Your task to perform on an android device: set an alarm Image 0: 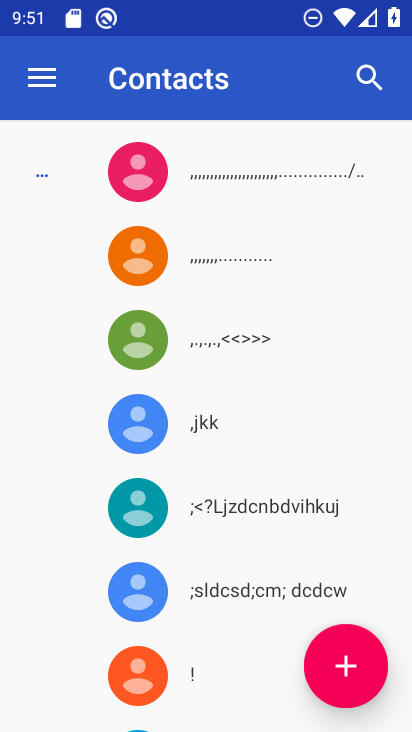
Step 0: press home button
Your task to perform on an android device: set an alarm Image 1: 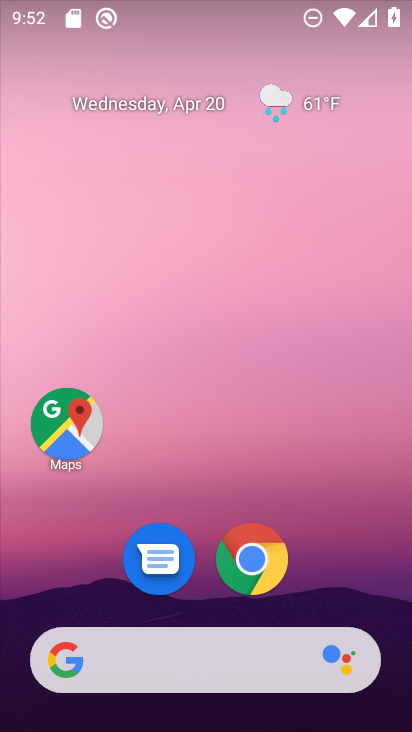
Step 1: drag from (388, 600) to (347, 174)
Your task to perform on an android device: set an alarm Image 2: 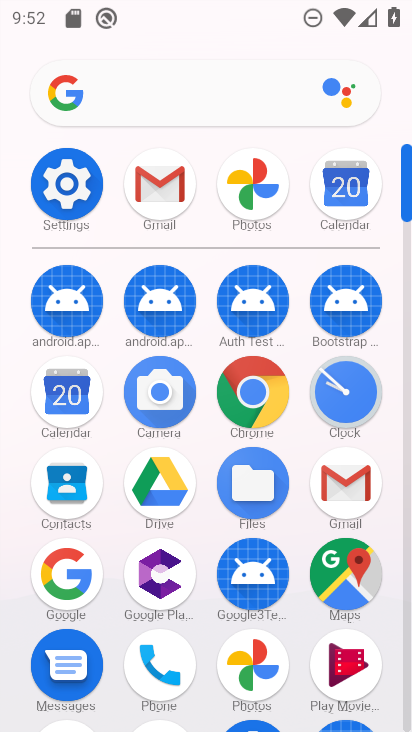
Step 2: click (408, 695)
Your task to perform on an android device: set an alarm Image 3: 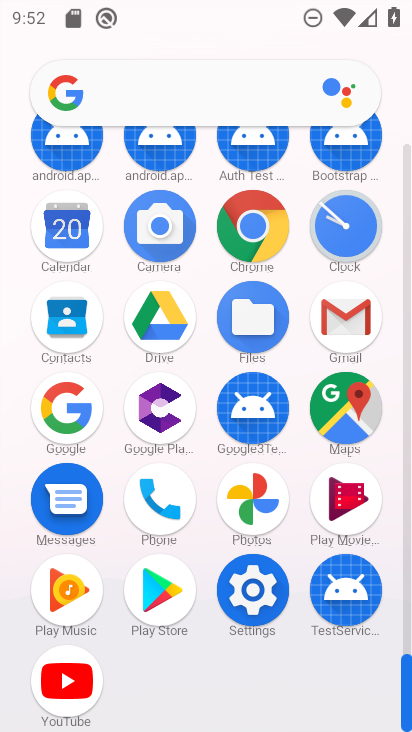
Step 3: click (343, 222)
Your task to perform on an android device: set an alarm Image 4: 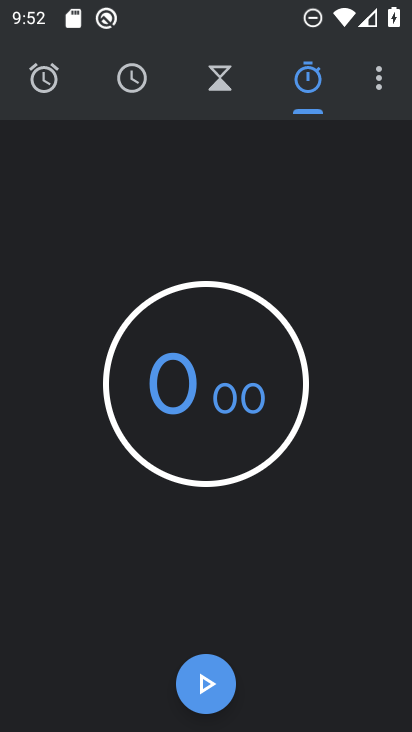
Step 4: click (37, 77)
Your task to perform on an android device: set an alarm Image 5: 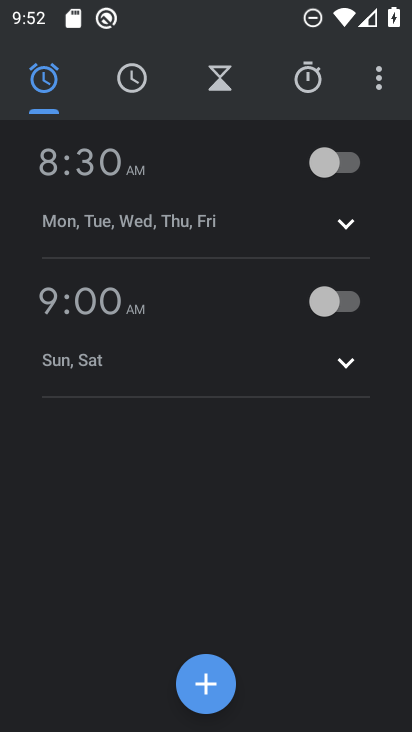
Step 5: click (63, 172)
Your task to perform on an android device: set an alarm Image 6: 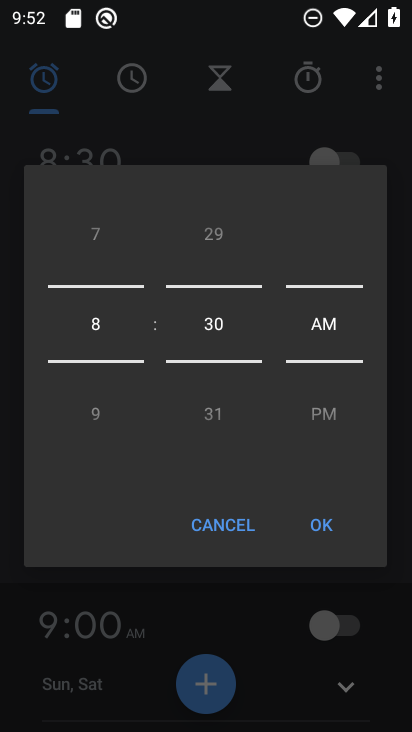
Step 6: drag from (116, 283) to (92, 496)
Your task to perform on an android device: set an alarm Image 7: 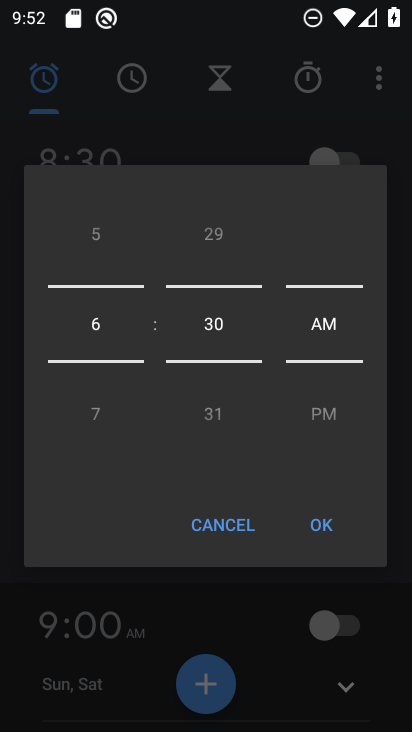
Step 7: click (322, 519)
Your task to perform on an android device: set an alarm Image 8: 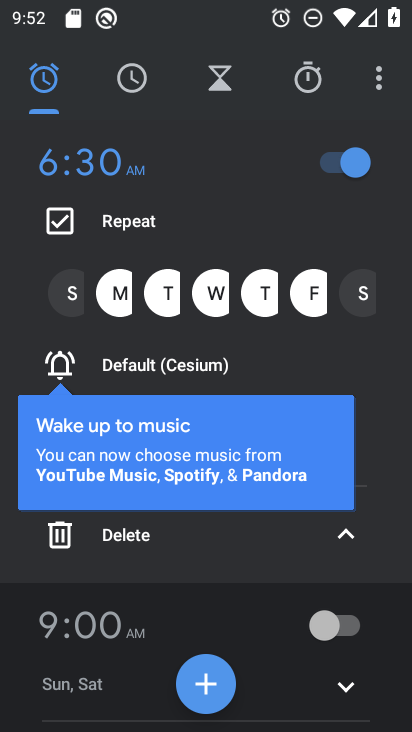
Step 8: click (358, 292)
Your task to perform on an android device: set an alarm Image 9: 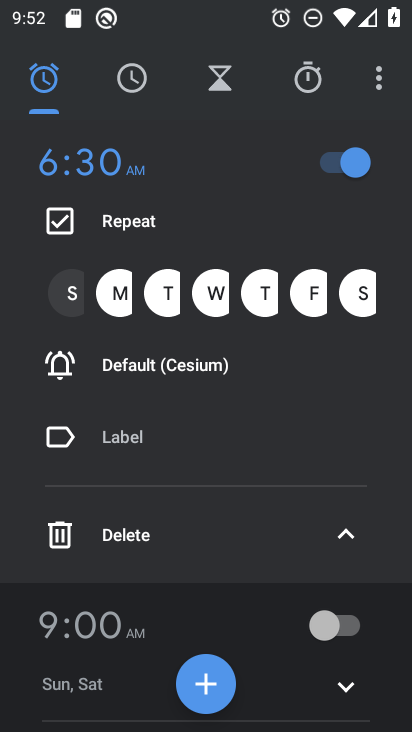
Step 9: click (353, 534)
Your task to perform on an android device: set an alarm Image 10: 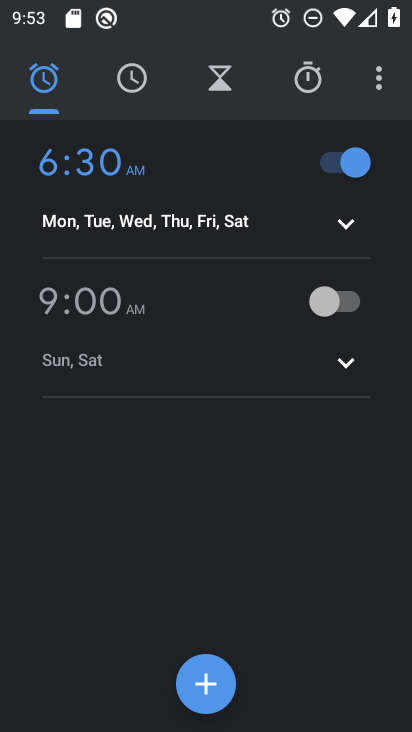
Step 10: task complete